Your task to perform on an android device: Go to Android settings Image 0: 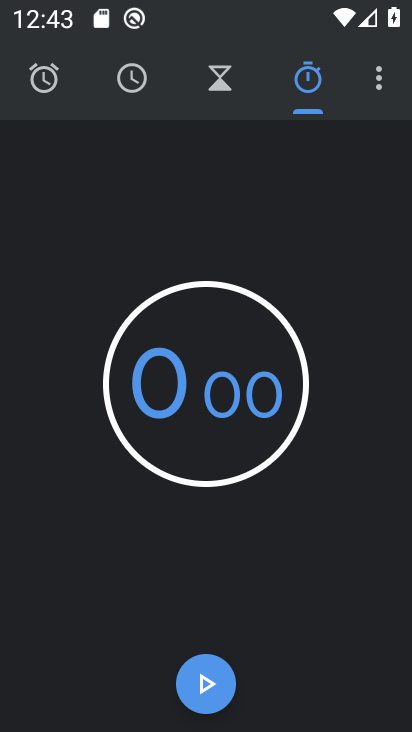
Step 0: press home button
Your task to perform on an android device: Go to Android settings Image 1: 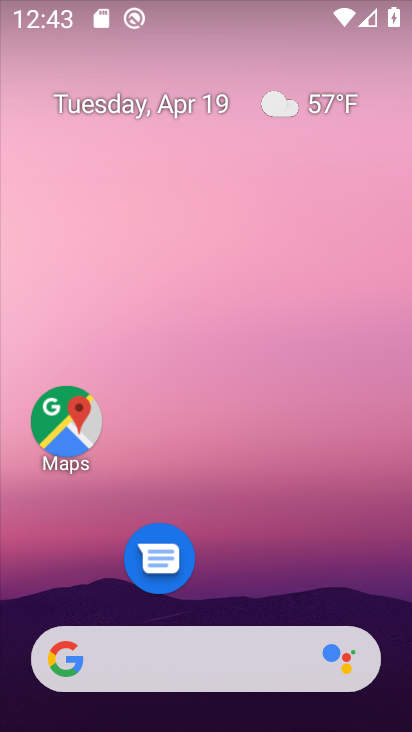
Step 1: drag from (243, 448) to (168, 82)
Your task to perform on an android device: Go to Android settings Image 2: 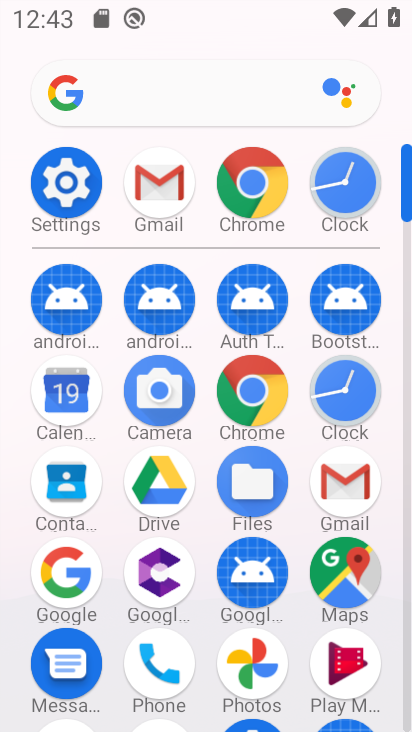
Step 2: click (68, 184)
Your task to perform on an android device: Go to Android settings Image 3: 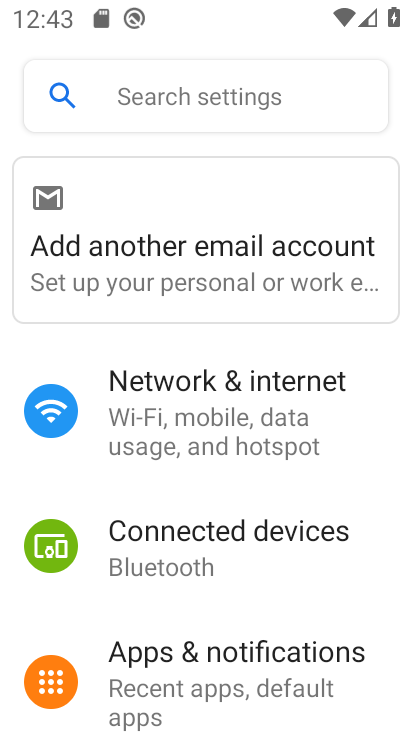
Step 3: drag from (212, 594) to (176, 105)
Your task to perform on an android device: Go to Android settings Image 4: 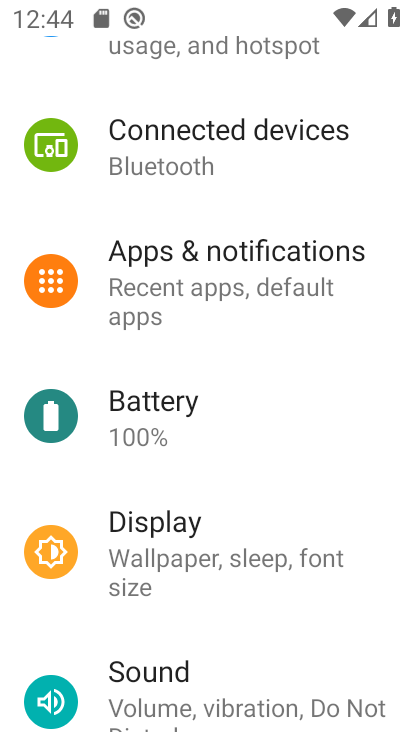
Step 4: drag from (201, 656) to (177, 102)
Your task to perform on an android device: Go to Android settings Image 5: 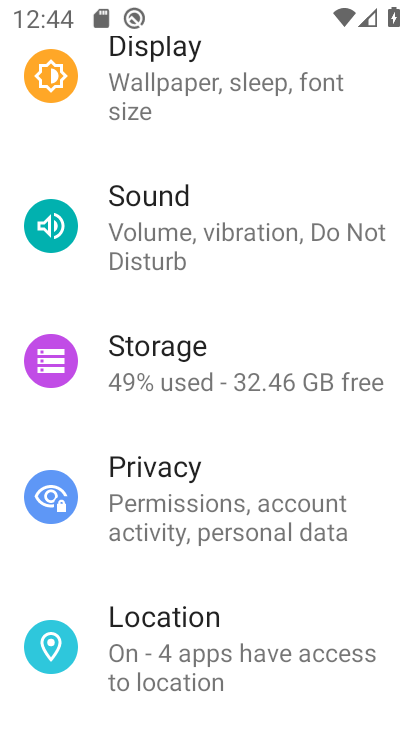
Step 5: drag from (185, 657) to (181, 95)
Your task to perform on an android device: Go to Android settings Image 6: 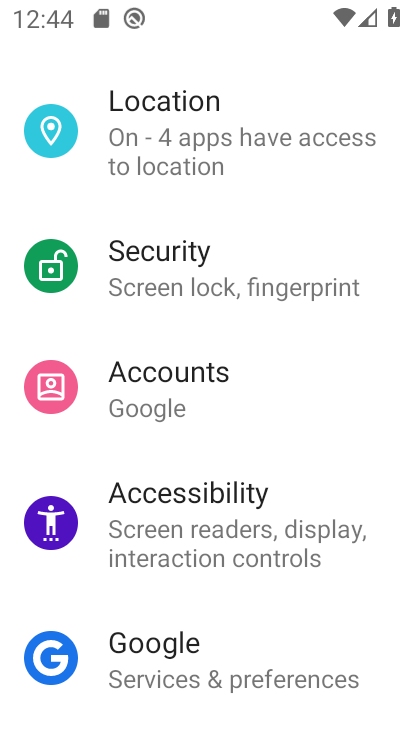
Step 6: drag from (160, 632) to (148, 154)
Your task to perform on an android device: Go to Android settings Image 7: 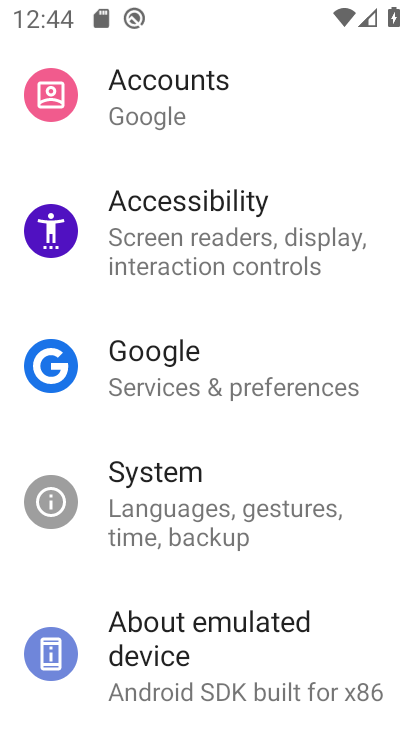
Step 7: click (189, 664)
Your task to perform on an android device: Go to Android settings Image 8: 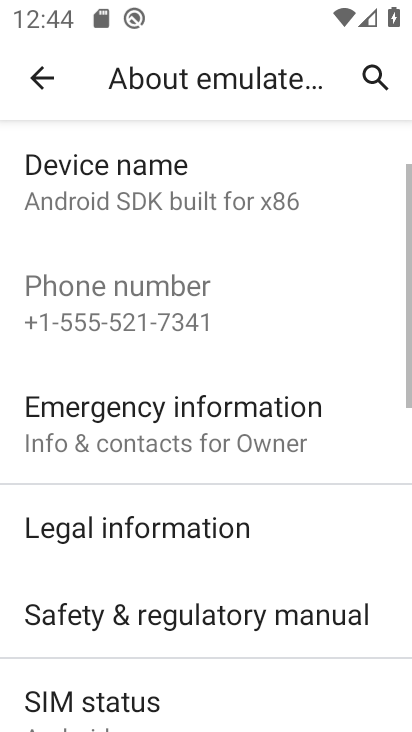
Step 8: task complete